Your task to perform on an android device: check battery use Image 0: 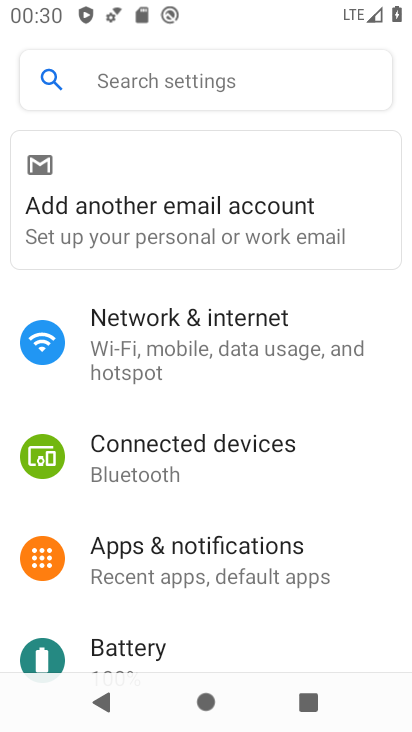
Step 0: press home button
Your task to perform on an android device: check battery use Image 1: 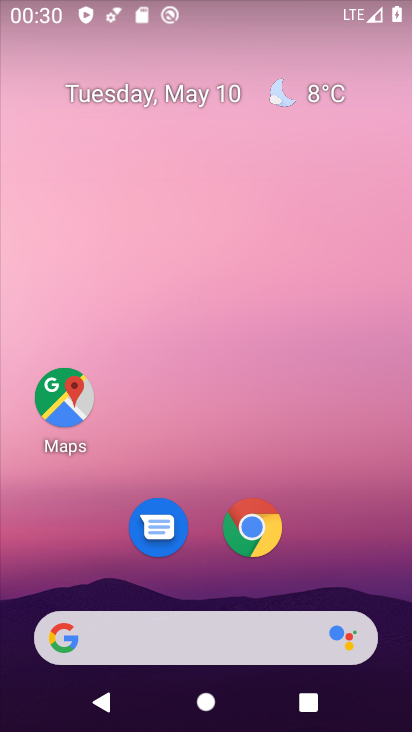
Step 1: drag from (305, 563) to (138, 123)
Your task to perform on an android device: check battery use Image 2: 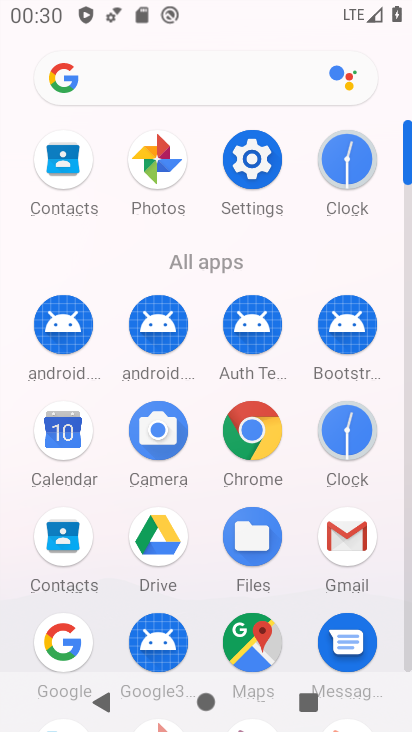
Step 2: click (261, 156)
Your task to perform on an android device: check battery use Image 3: 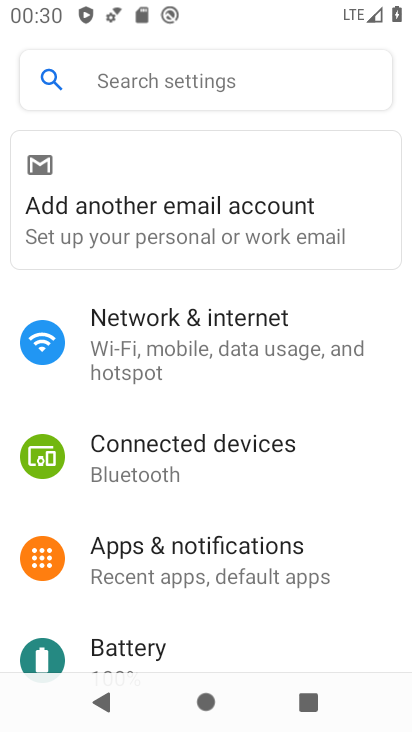
Step 3: click (98, 655)
Your task to perform on an android device: check battery use Image 4: 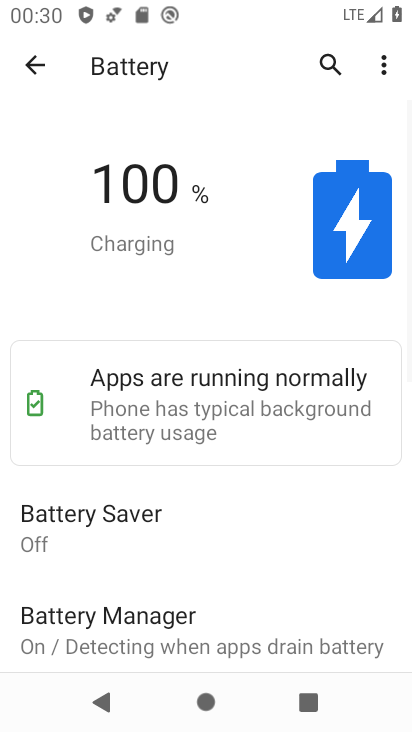
Step 4: task complete